Your task to perform on an android device: What's on my calendar today? Image 0: 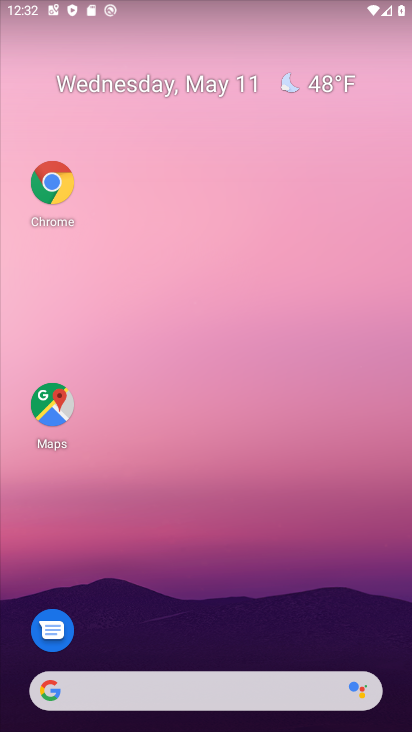
Step 0: drag from (223, 652) to (156, 70)
Your task to perform on an android device: What's on my calendar today? Image 1: 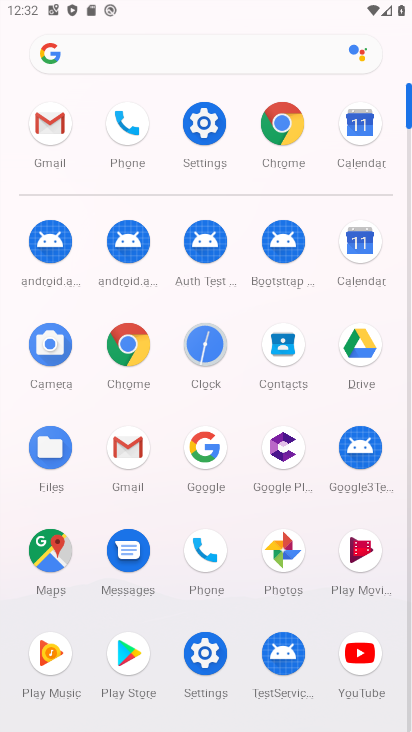
Step 1: click (368, 244)
Your task to perform on an android device: What's on my calendar today? Image 2: 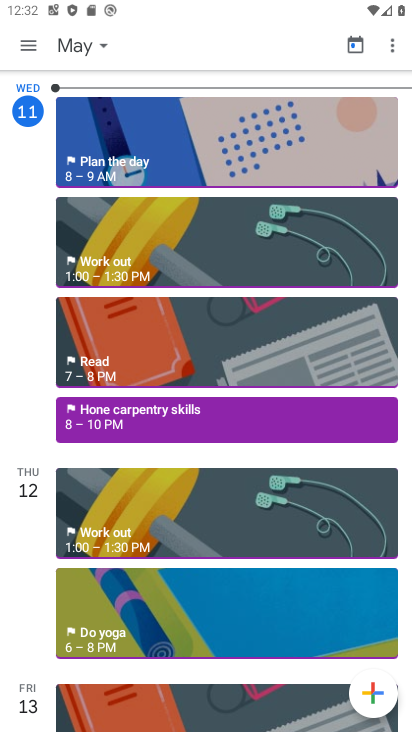
Step 2: click (40, 99)
Your task to perform on an android device: What's on my calendar today? Image 3: 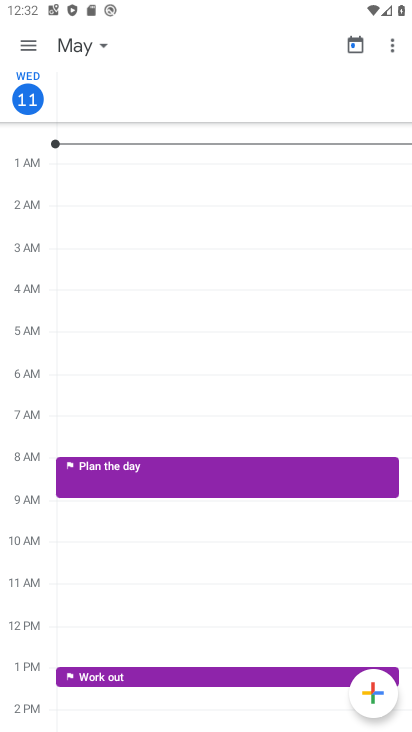
Step 3: task complete